Your task to perform on an android device: Is it going to rain today? Image 0: 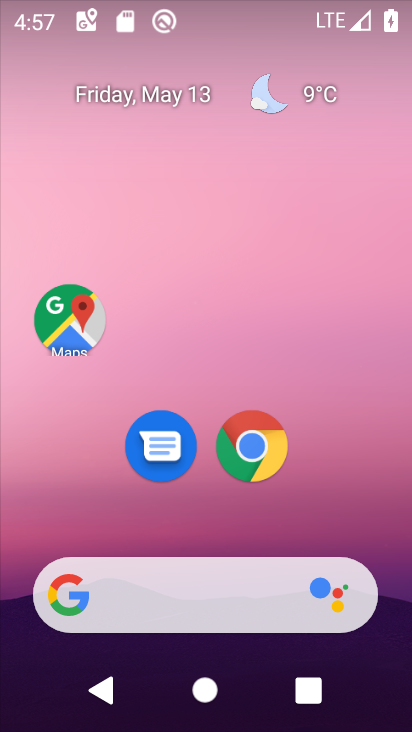
Step 0: drag from (139, 521) to (175, 70)
Your task to perform on an android device: Is it going to rain today? Image 1: 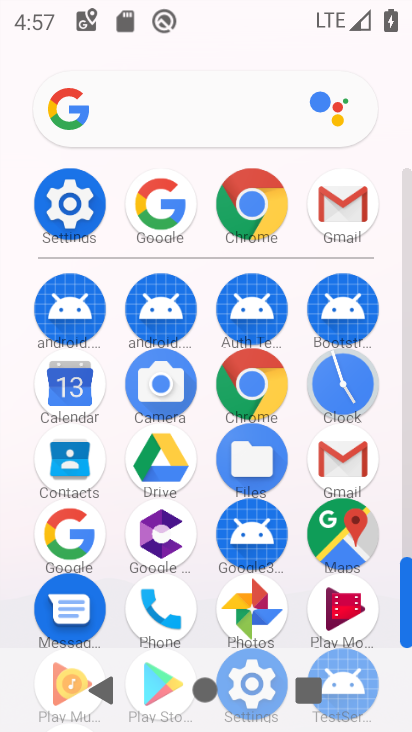
Step 1: click (175, 121)
Your task to perform on an android device: Is it going to rain today? Image 2: 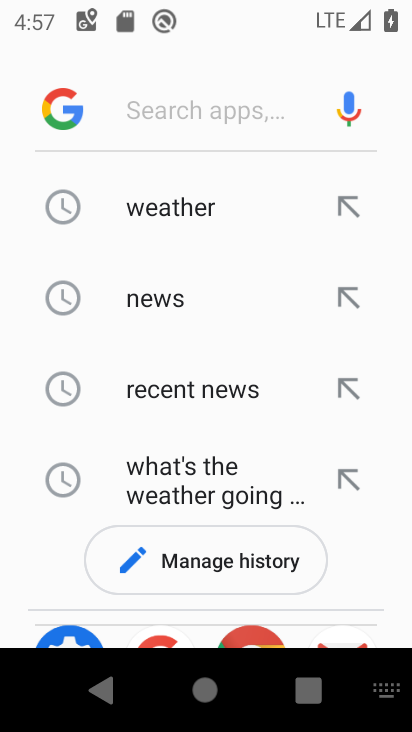
Step 2: type "is it going to rain today"
Your task to perform on an android device: Is it going to rain today? Image 3: 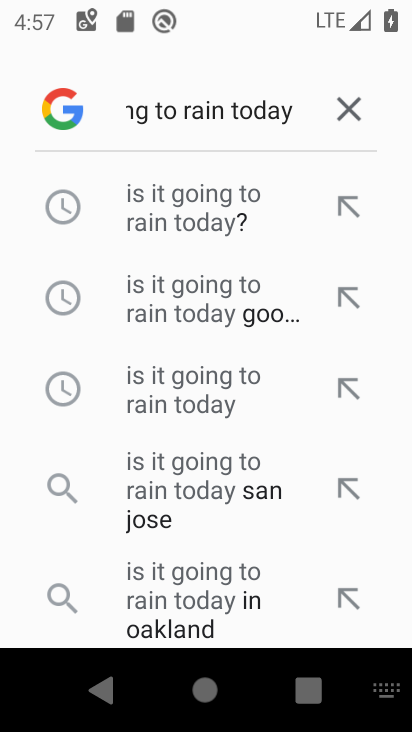
Step 3: click (188, 210)
Your task to perform on an android device: Is it going to rain today? Image 4: 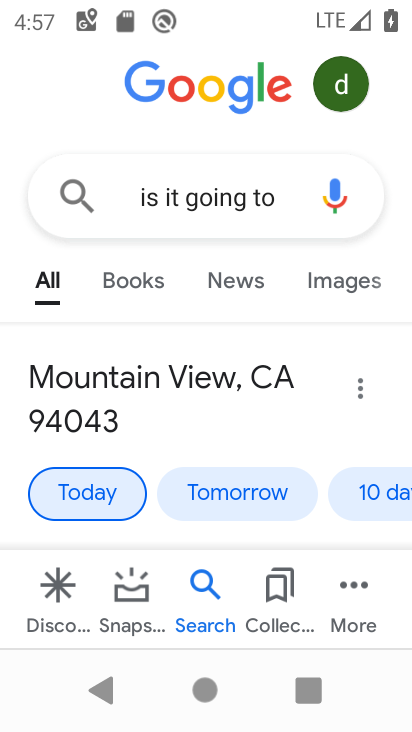
Step 4: task complete